Your task to perform on an android device: Turn on the flashlight Image 0: 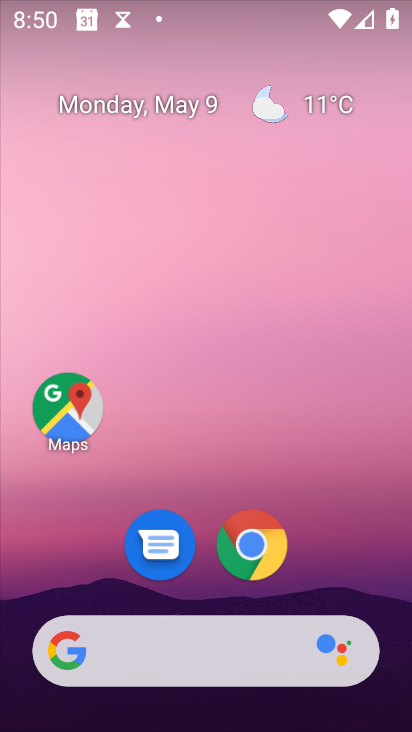
Step 0: drag from (186, 705) to (195, 209)
Your task to perform on an android device: Turn on the flashlight Image 1: 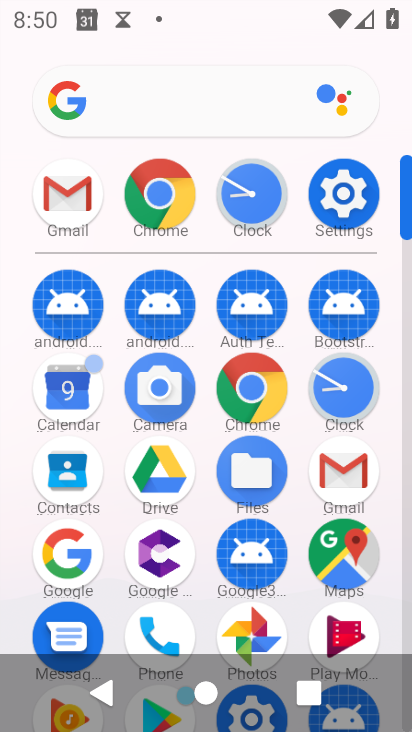
Step 1: click (338, 188)
Your task to perform on an android device: Turn on the flashlight Image 2: 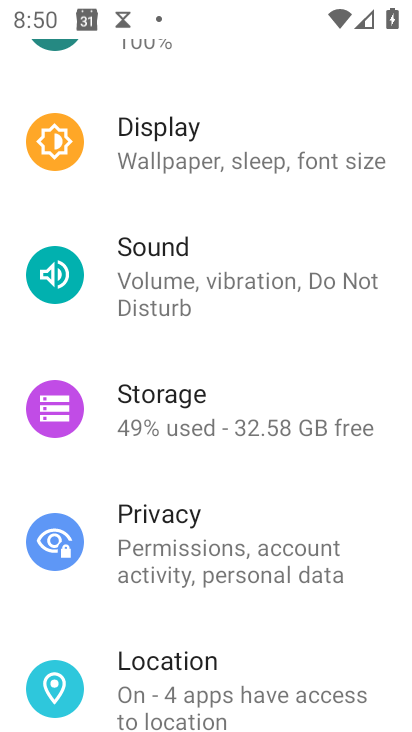
Step 2: task complete